Your task to perform on an android device: Go to notification settings Image 0: 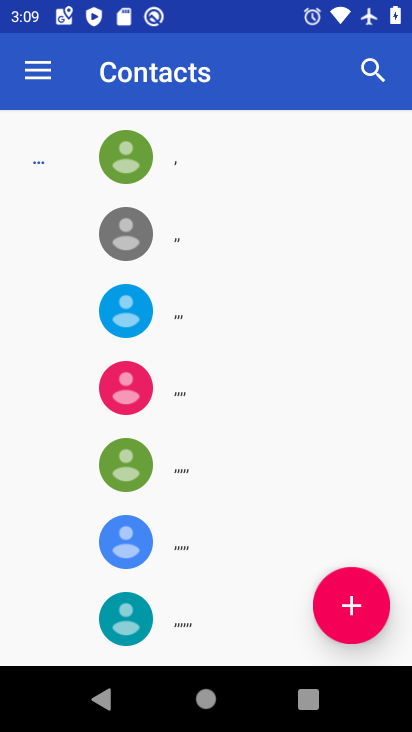
Step 0: press home button
Your task to perform on an android device: Go to notification settings Image 1: 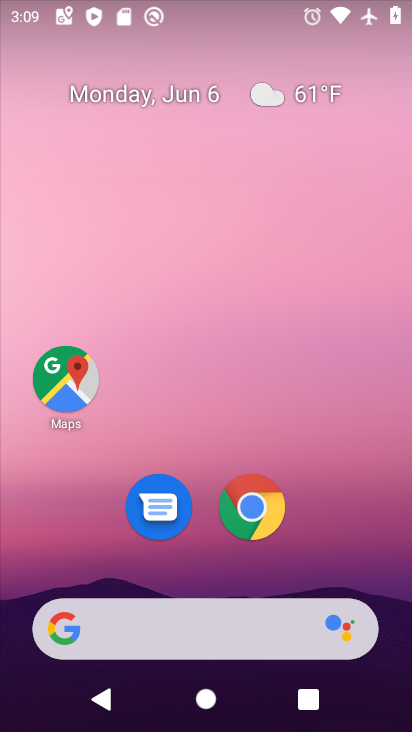
Step 1: drag from (330, 579) to (359, 59)
Your task to perform on an android device: Go to notification settings Image 2: 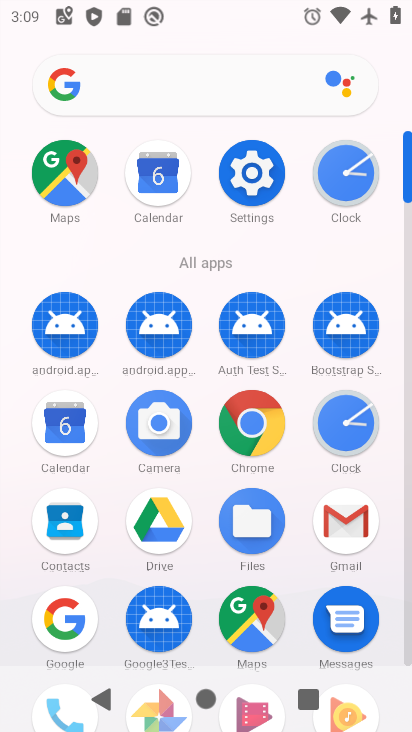
Step 2: click (253, 192)
Your task to perform on an android device: Go to notification settings Image 3: 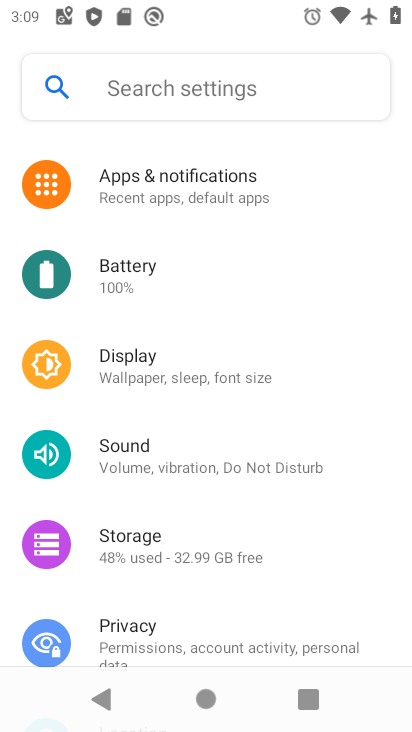
Step 3: click (260, 184)
Your task to perform on an android device: Go to notification settings Image 4: 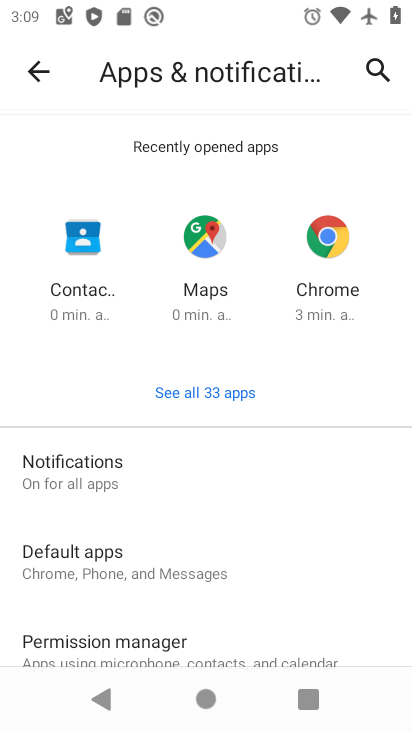
Step 4: click (305, 468)
Your task to perform on an android device: Go to notification settings Image 5: 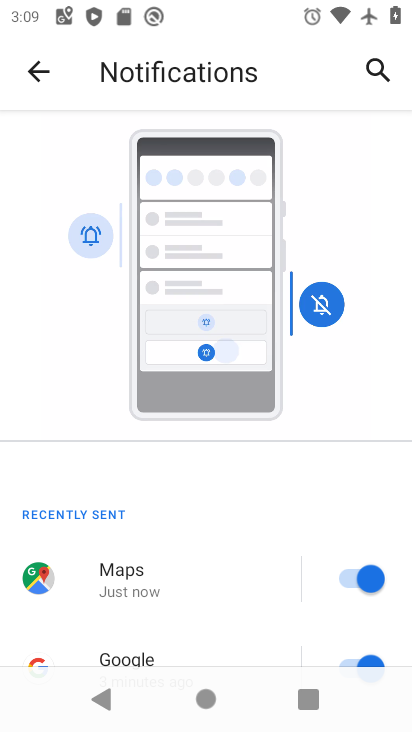
Step 5: task complete